Your task to perform on an android device: Open Maps and search for coffee Image 0: 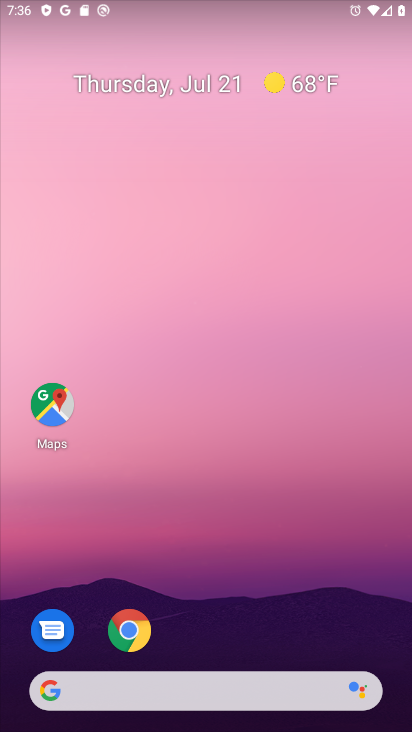
Step 0: drag from (214, 608) to (175, 90)
Your task to perform on an android device: Open Maps and search for coffee Image 1: 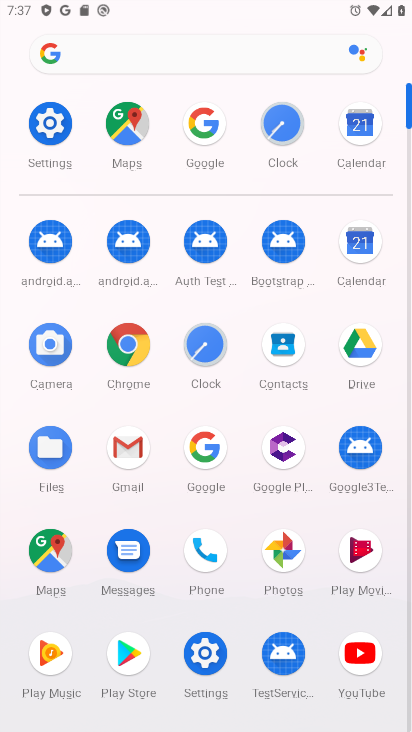
Step 1: click (118, 105)
Your task to perform on an android device: Open Maps and search for coffee Image 2: 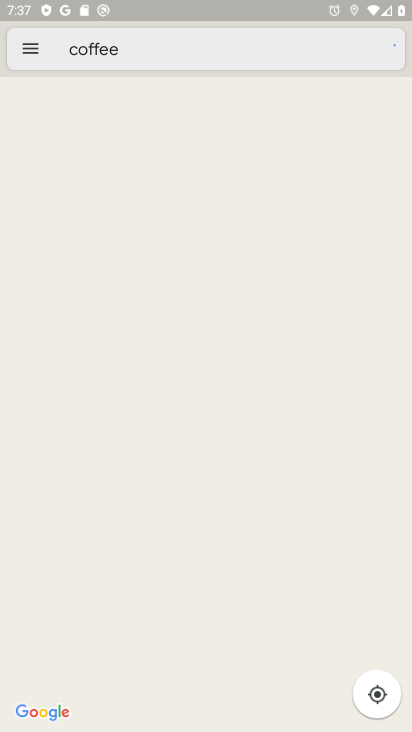
Step 2: click (202, 42)
Your task to perform on an android device: Open Maps and search for coffee Image 3: 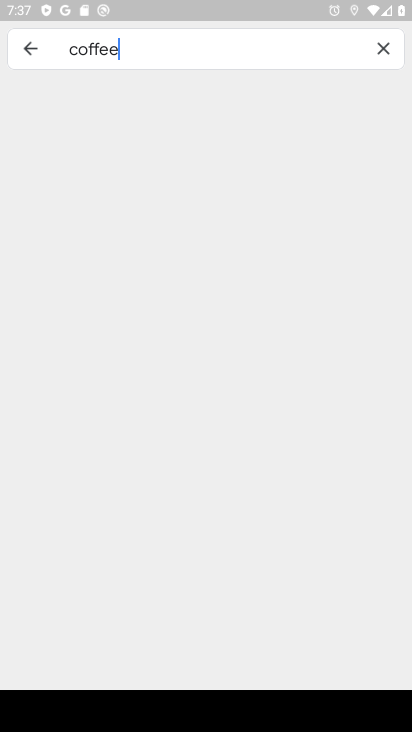
Step 3: press enter
Your task to perform on an android device: Open Maps and search for coffee Image 4: 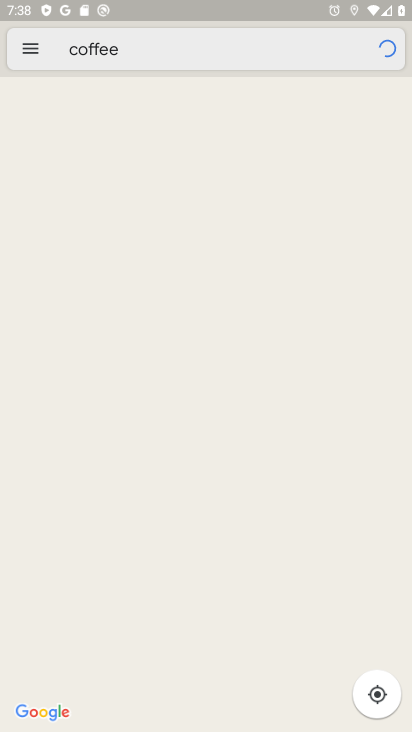
Step 4: task complete